Your task to perform on an android device: Open calendar and show me the third week of next month Image 0: 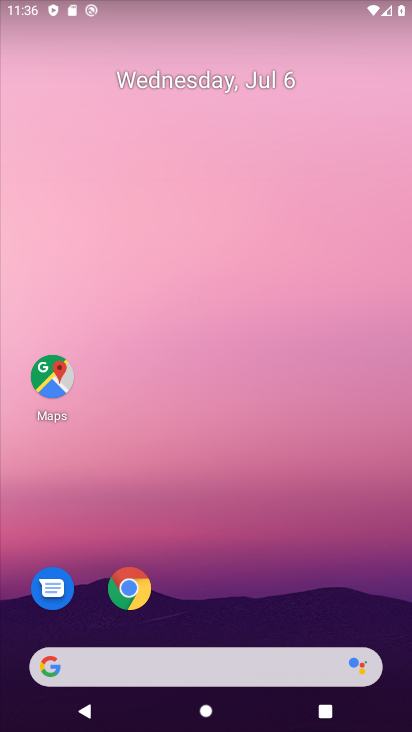
Step 0: drag from (177, 621) to (242, 158)
Your task to perform on an android device: Open calendar and show me the third week of next month Image 1: 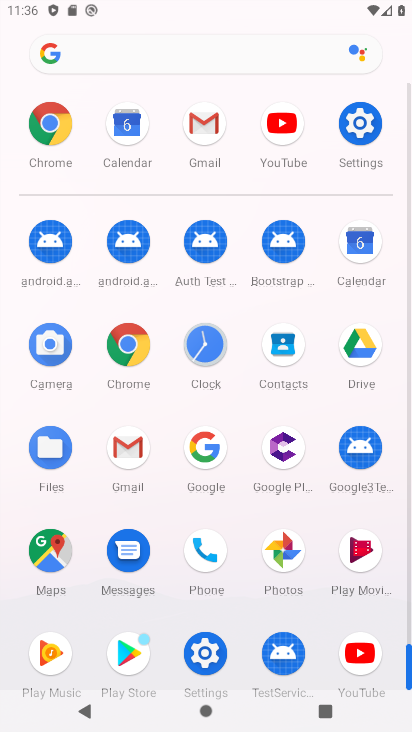
Step 1: click (368, 234)
Your task to perform on an android device: Open calendar and show me the third week of next month Image 2: 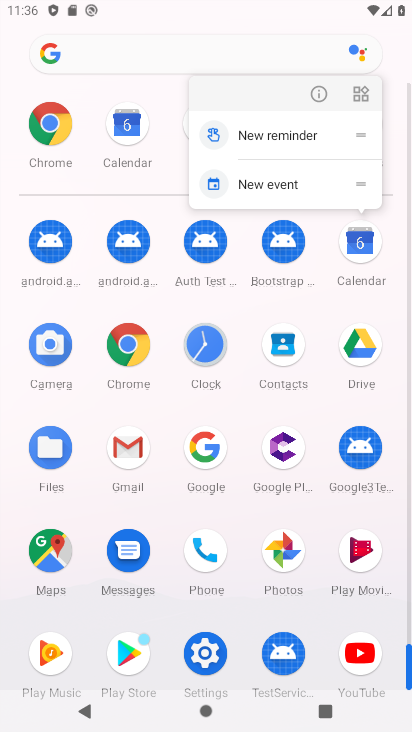
Step 2: click (317, 91)
Your task to perform on an android device: Open calendar and show me the third week of next month Image 3: 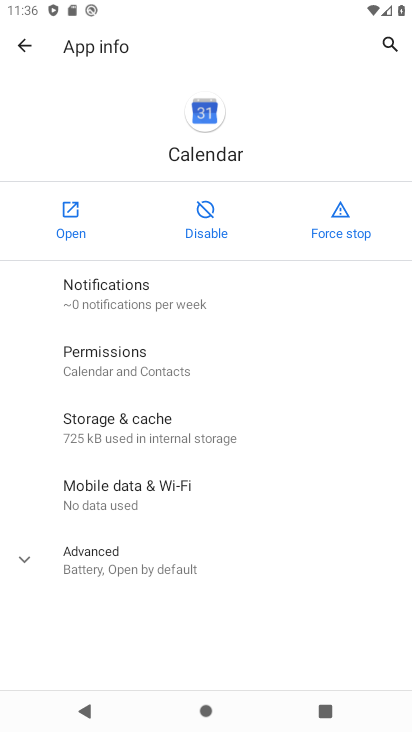
Step 3: click (72, 218)
Your task to perform on an android device: Open calendar and show me the third week of next month Image 4: 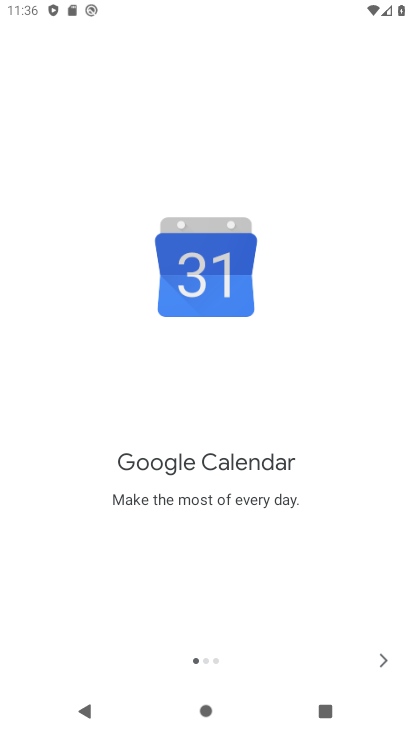
Step 4: click (378, 657)
Your task to perform on an android device: Open calendar and show me the third week of next month Image 5: 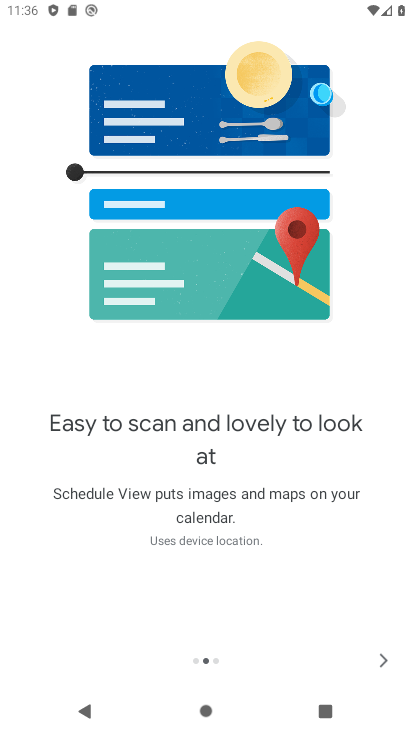
Step 5: click (383, 656)
Your task to perform on an android device: Open calendar and show me the third week of next month Image 6: 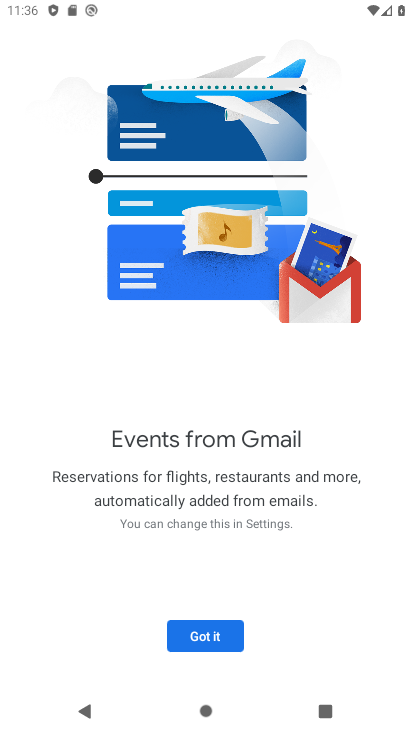
Step 6: click (377, 652)
Your task to perform on an android device: Open calendar and show me the third week of next month Image 7: 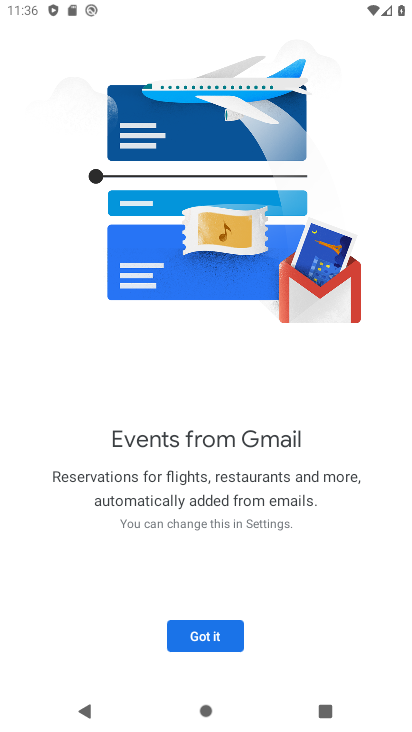
Step 7: click (204, 633)
Your task to perform on an android device: Open calendar and show me the third week of next month Image 8: 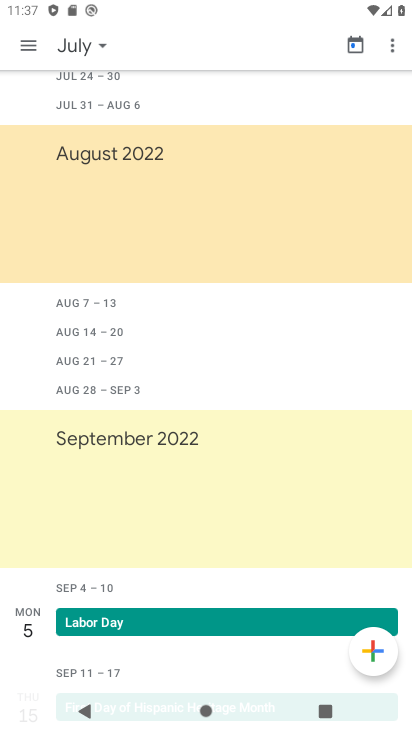
Step 8: drag from (208, 468) to (227, 140)
Your task to perform on an android device: Open calendar and show me the third week of next month Image 9: 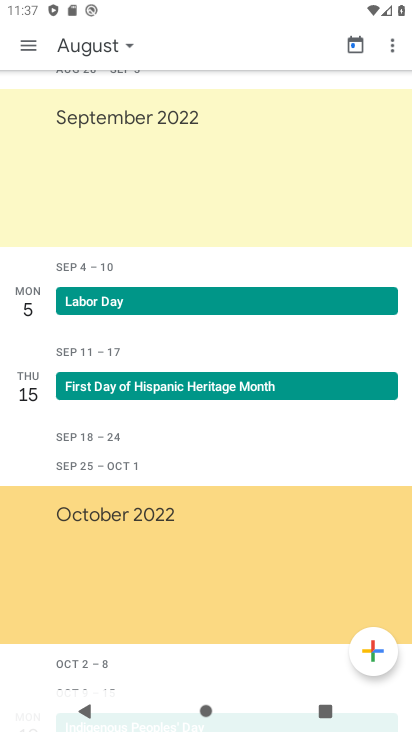
Step 9: drag from (174, 190) to (284, 720)
Your task to perform on an android device: Open calendar and show me the third week of next month Image 10: 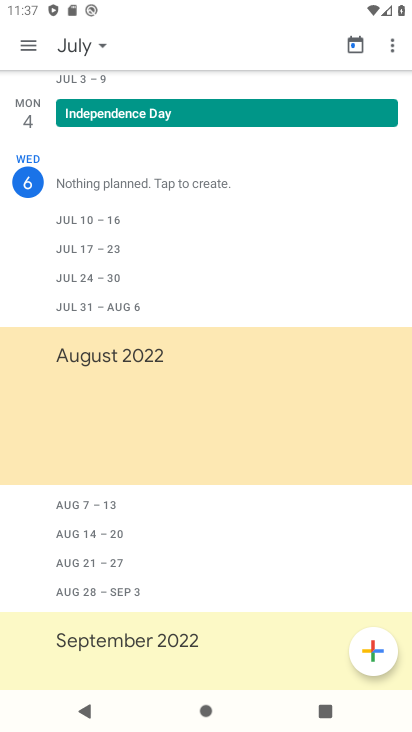
Step 10: click (84, 43)
Your task to perform on an android device: Open calendar and show me the third week of next month Image 11: 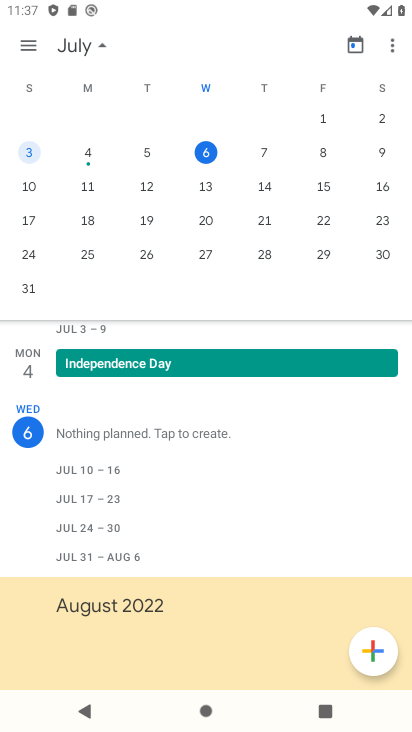
Step 11: drag from (357, 220) to (0, 199)
Your task to perform on an android device: Open calendar and show me the third week of next month Image 12: 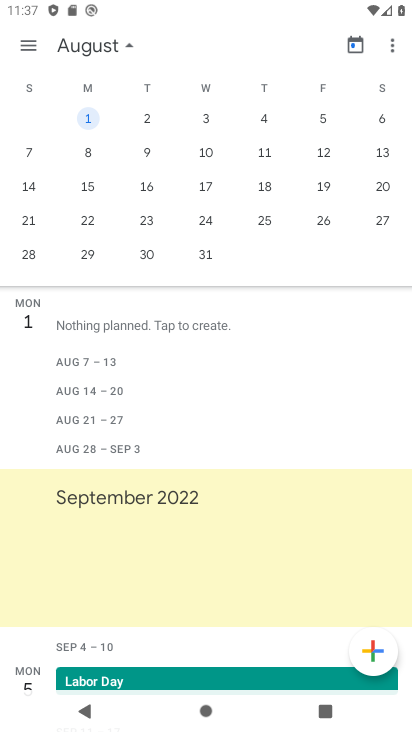
Step 12: click (318, 182)
Your task to perform on an android device: Open calendar and show me the third week of next month Image 13: 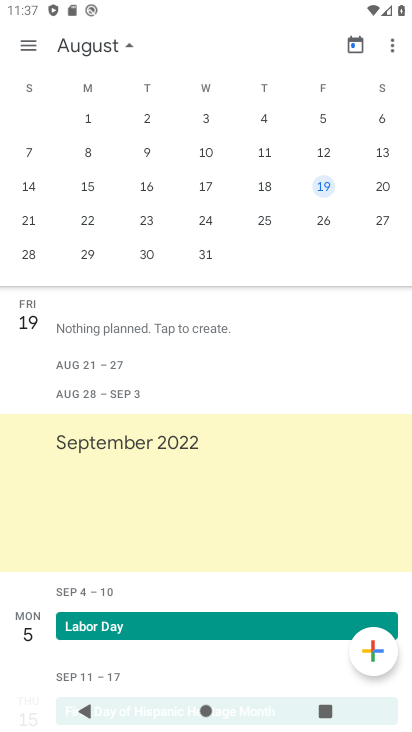
Step 13: task complete